Your task to perform on an android device: Go to wifi settings Image 0: 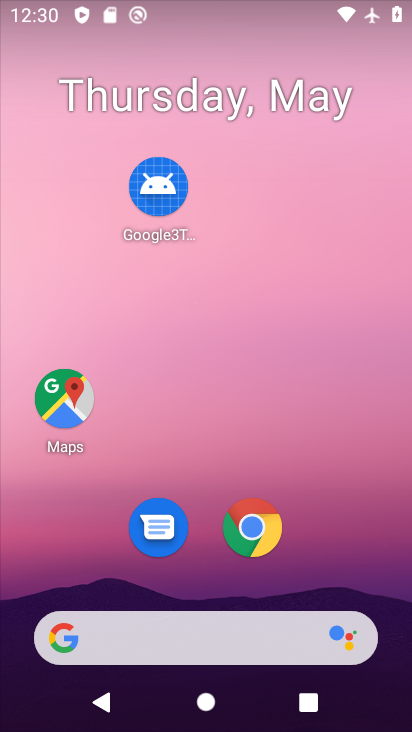
Step 0: drag from (203, 586) to (251, 8)
Your task to perform on an android device: Go to wifi settings Image 1: 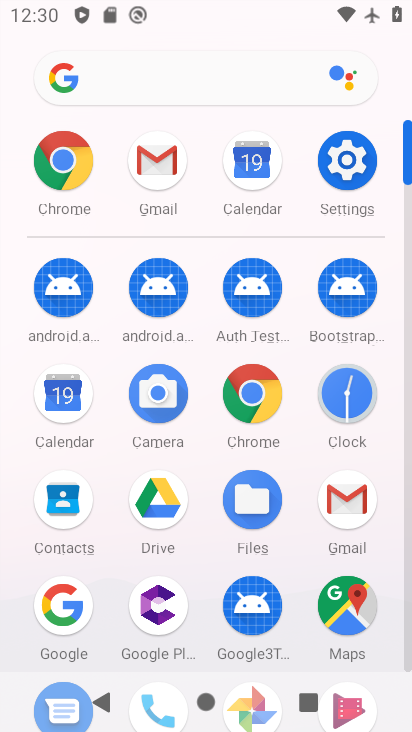
Step 1: click (347, 153)
Your task to perform on an android device: Go to wifi settings Image 2: 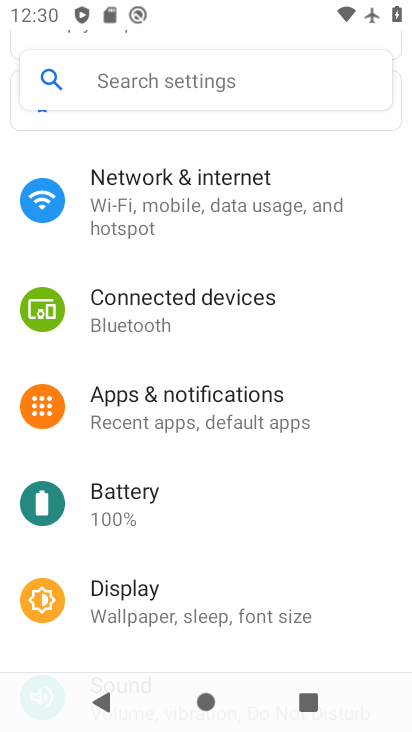
Step 2: click (203, 206)
Your task to perform on an android device: Go to wifi settings Image 3: 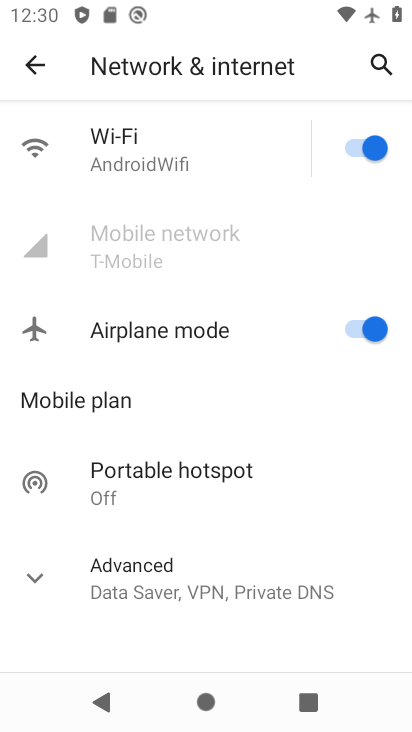
Step 3: click (199, 151)
Your task to perform on an android device: Go to wifi settings Image 4: 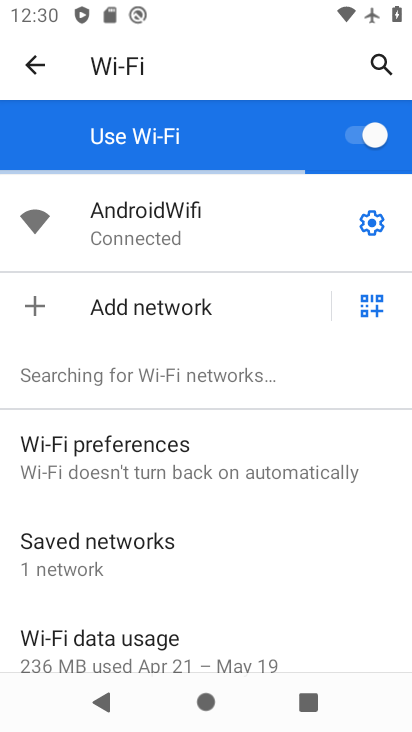
Step 4: task complete